Your task to perform on an android device: change notifications settings Image 0: 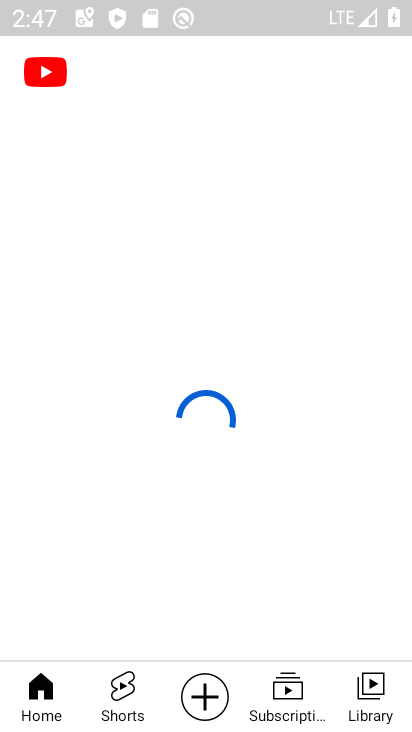
Step 0: press home button
Your task to perform on an android device: change notifications settings Image 1: 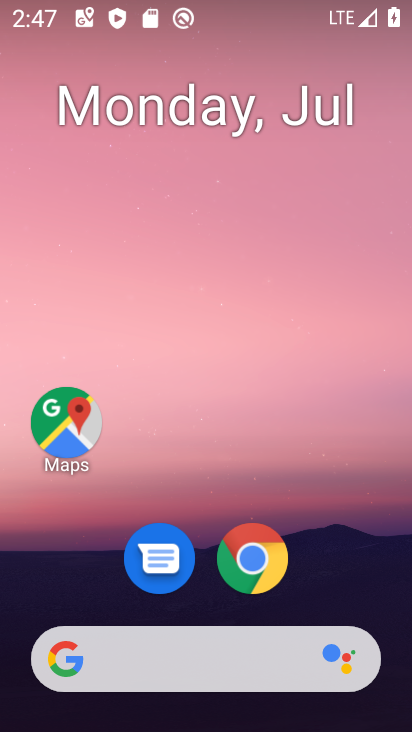
Step 1: drag from (359, 559) to (363, 51)
Your task to perform on an android device: change notifications settings Image 2: 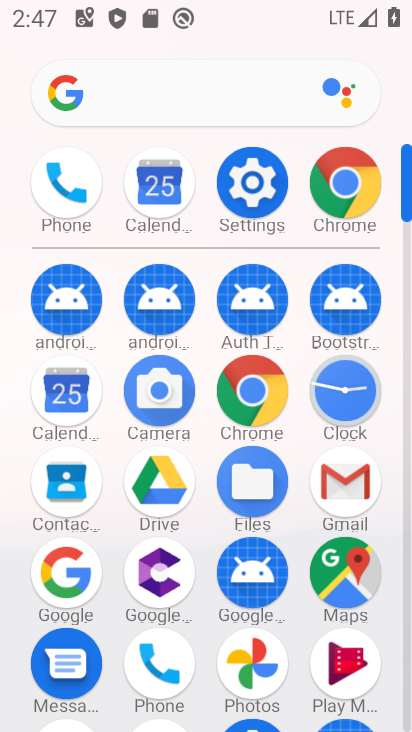
Step 2: click (265, 192)
Your task to perform on an android device: change notifications settings Image 3: 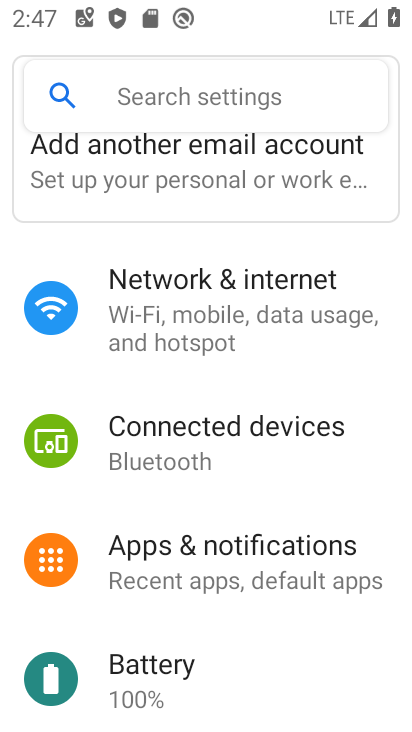
Step 3: drag from (324, 525) to (326, 340)
Your task to perform on an android device: change notifications settings Image 4: 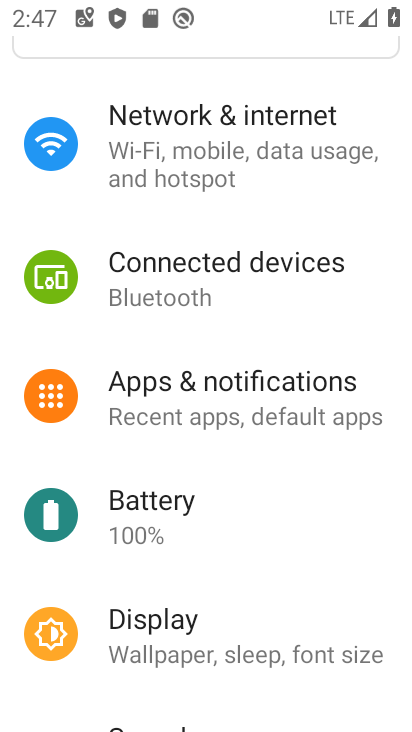
Step 4: drag from (326, 493) to (329, 350)
Your task to perform on an android device: change notifications settings Image 5: 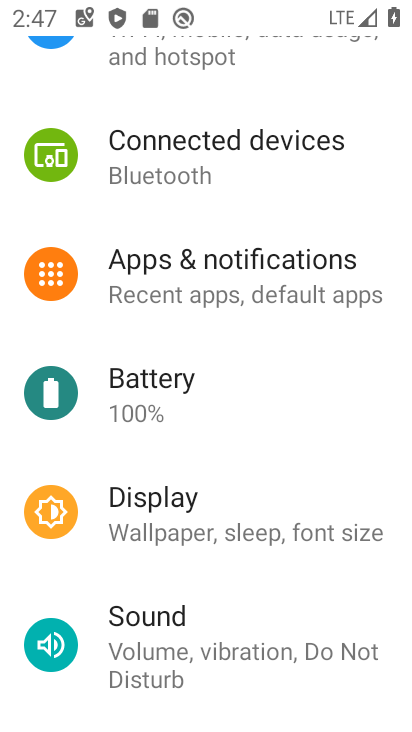
Step 5: drag from (327, 526) to (315, 363)
Your task to perform on an android device: change notifications settings Image 6: 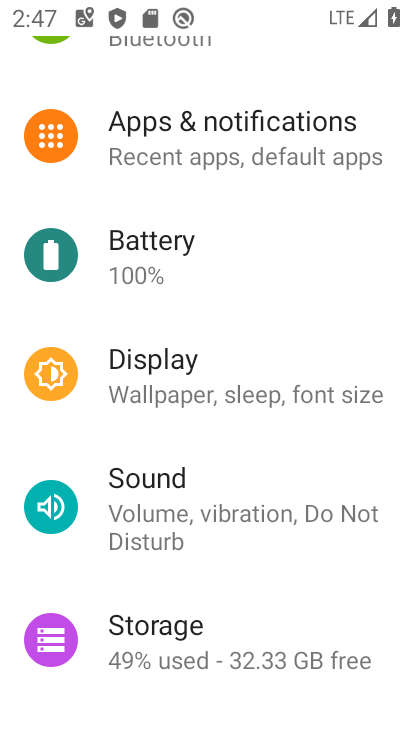
Step 6: drag from (291, 504) to (289, 310)
Your task to perform on an android device: change notifications settings Image 7: 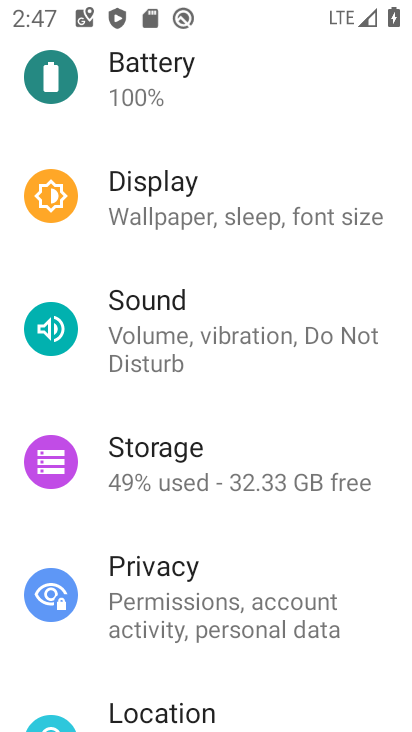
Step 7: drag from (303, 436) to (311, 325)
Your task to perform on an android device: change notifications settings Image 8: 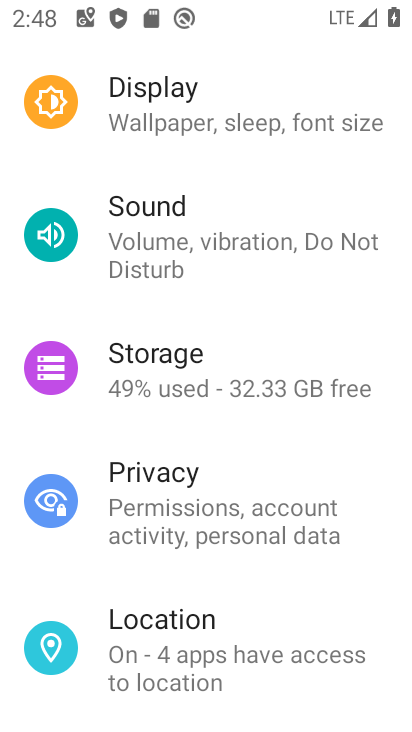
Step 8: drag from (333, 532) to (339, 426)
Your task to perform on an android device: change notifications settings Image 9: 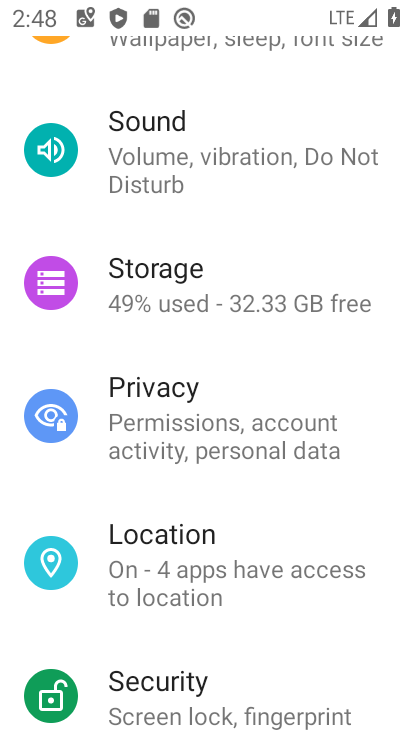
Step 9: drag from (348, 551) to (347, 430)
Your task to perform on an android device: change notifications settings Image 10: 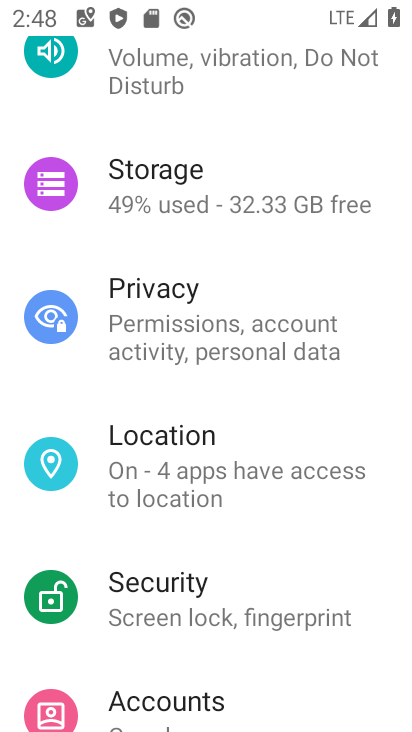
Step 10: drag from (347, 293) to (346, 402)
Your task to perform on an android device: change notifications settings Image 11: 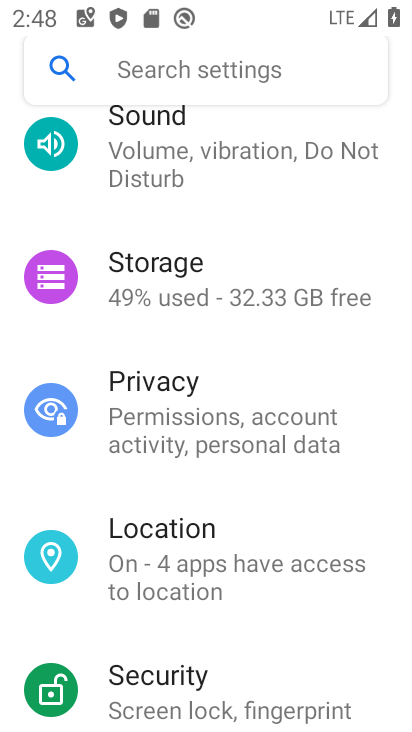
Step 11: drag from (341, 295) to (351, 453)
Your task to perform on an android device: change notifications settings Image 12: 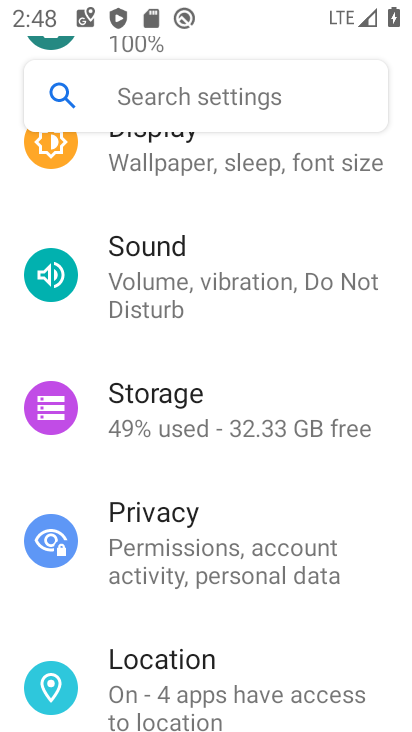
Step 12: drag from (336, 240) to (339, 360)
Your task to perform on an android device: change notifications settings Image 13: 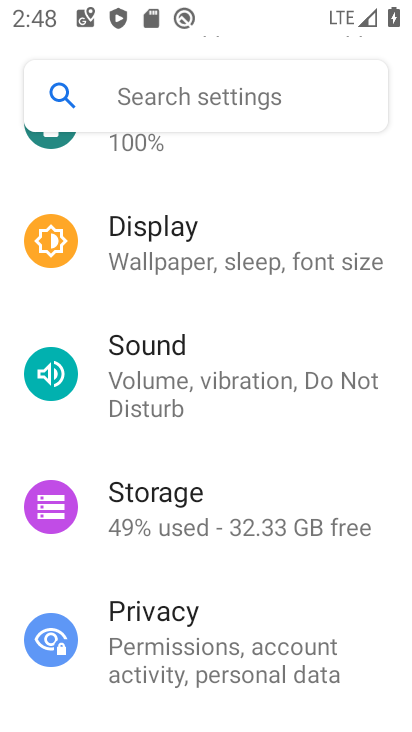
Step 13: drag from (343, 225) to (356, 366)
Your task to perform on an android device: change notifications settings Image 14: 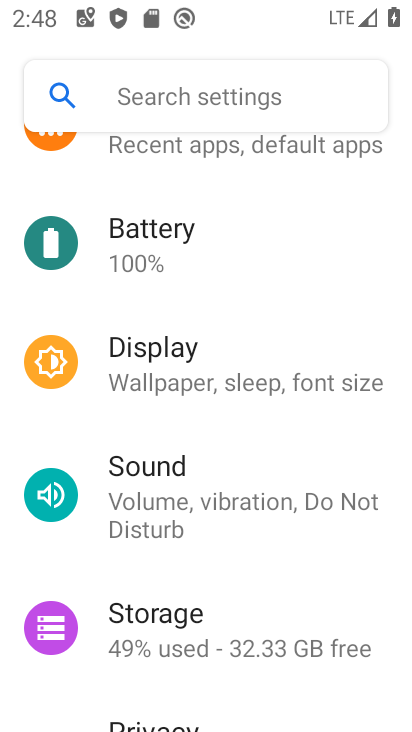
Step 14: drag from (354, 222) to (354, 392)
Your task to perform on an android device: change notifications settings Image 15: 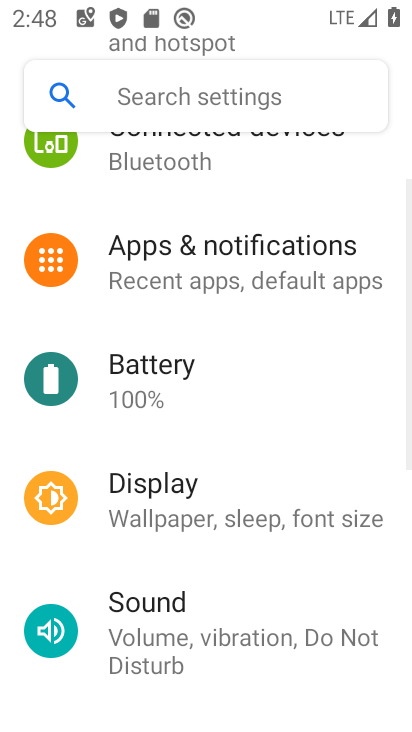
Step 15: click (324, 266)
Your task to perform on an android device: change notifications settings Image 16: 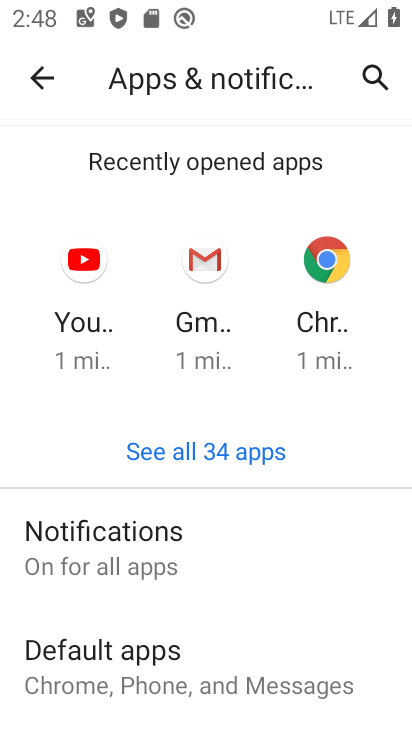
Step 16: drag from (309, 537) to (311, 423)
Your task to perform on an android device: change notifications settings Image 17: 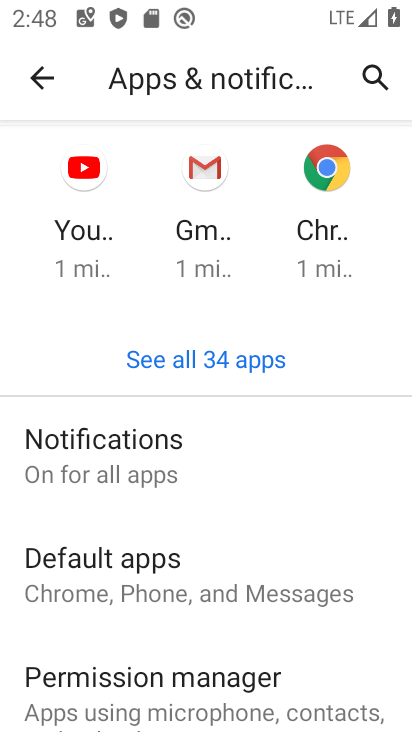
Step 17: click (192, 470)
Your task to perform on an android device: change notifications settings Image 18: 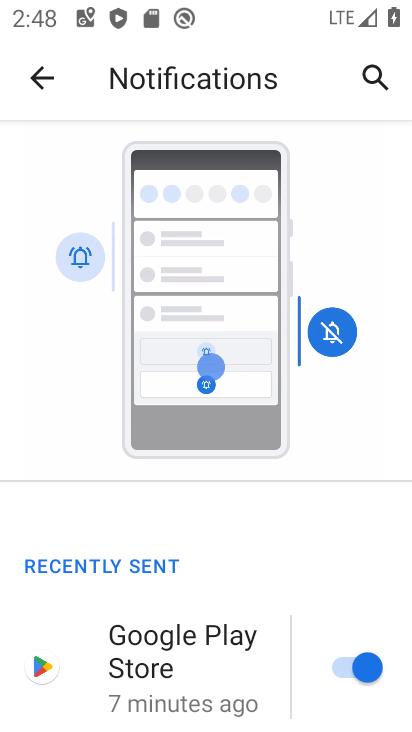
Step 18: drag from (254, 526) to (253, 441)
Your task to perform on an android device: change notifications settings Image 19: 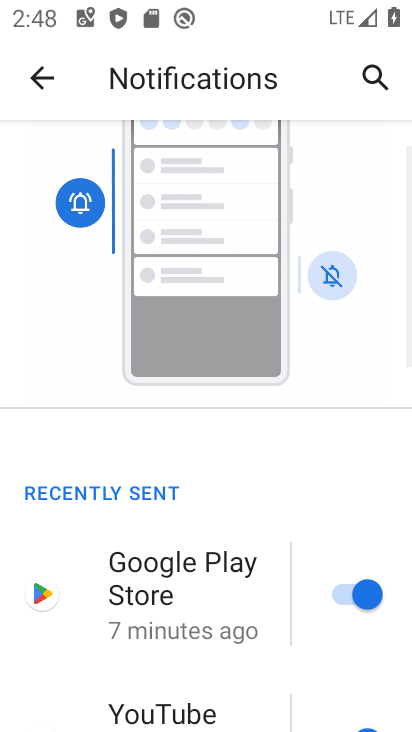
Step 19: drag from (260, 582) to (254, 452)
Your task to perform on an android device: change notifications settings Image 20: 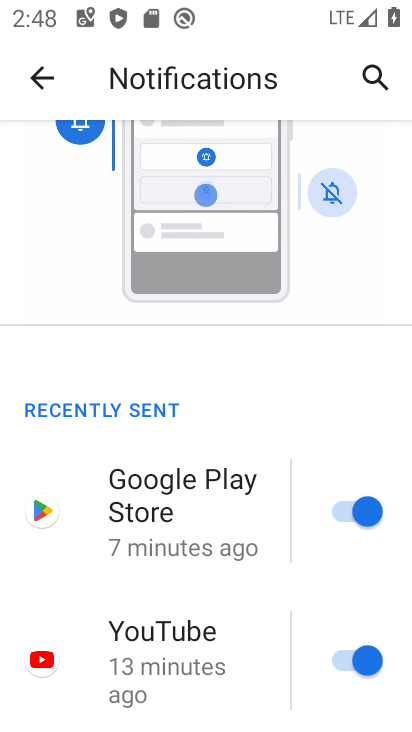
Step 20: drag from (261, 578) to (242, 426)
Your task to perform on an android device: change notifications settings Image 21: 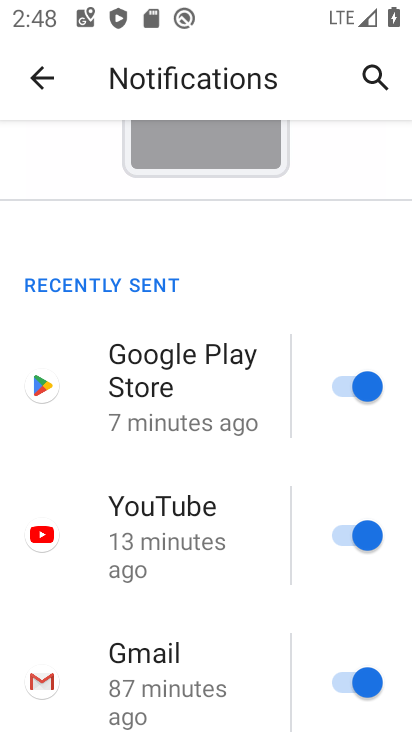
Step 21: drag from (244, 535) to (239, 430)
Your task to perform on an android device: change notifications settings Image 22: 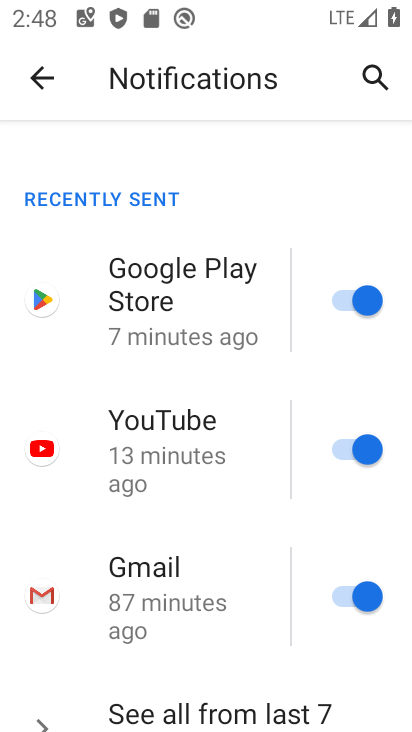
Step 22: click (361, 455)
Your task to perform on an android device: change notifications settings Image 23: 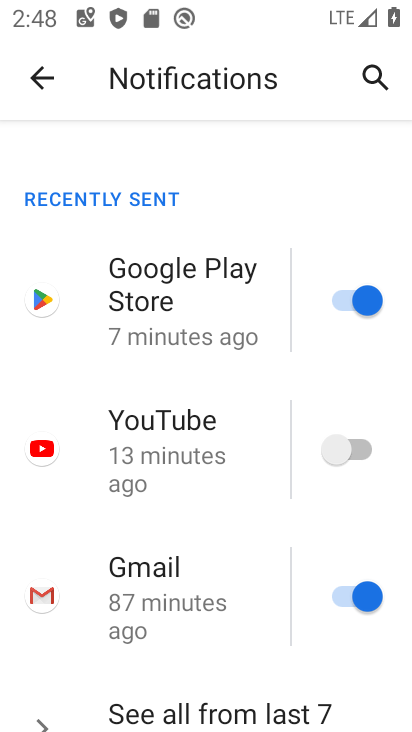
Step 23: click (360, 310)
Your task to perform on an android device: change notifications settings Image 24: 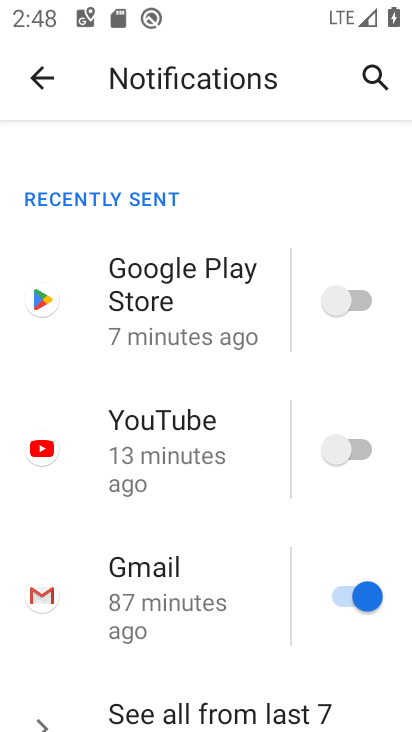
Step 24: click (362, 596)
Your task to perform on an android device: change notifications settings Image 25: 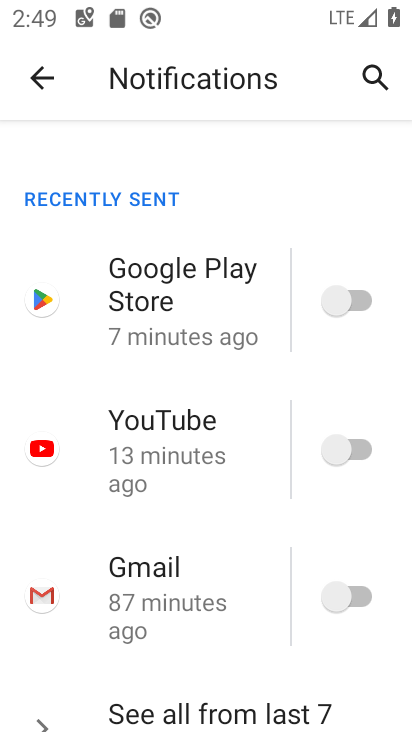
Step 25: task complete